Your task to perform on an android device: Open accessibility settings Image 0: 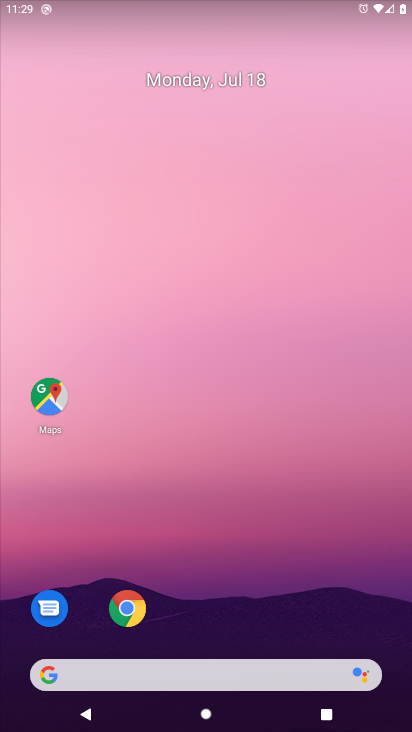
Step 0: drag from (54, 650) to (149, 189)
Your task to perform on an android device: Open accessibility settings Image 1: 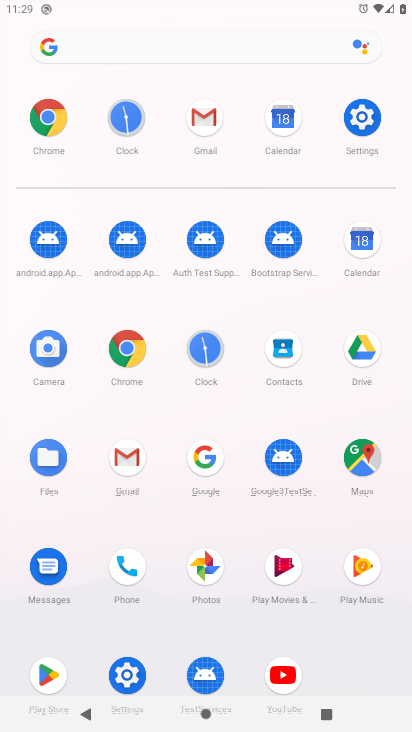
Step 1: click (119, 669)
Your task to perform on an android device: Open accessibility settings Image 2: 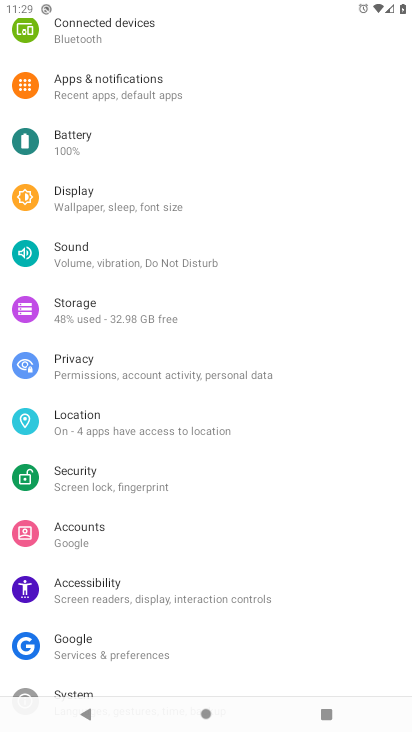
Step 2: click (110, 595)
Your task to perform on an android device: Open accessibility settings Image 3: 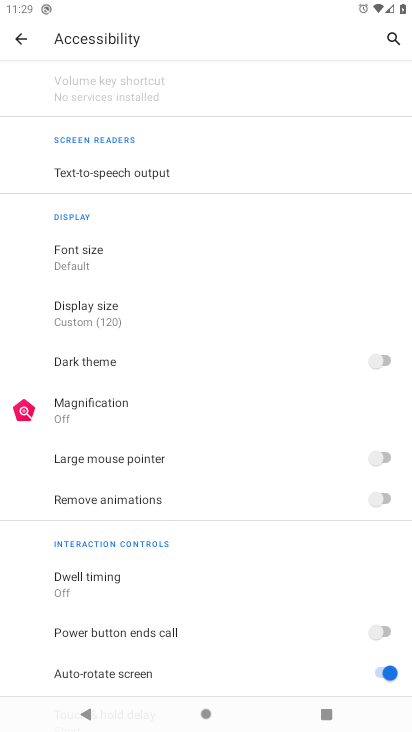
Step 3: task complete